Your task to perform on an android device: open app "Lyft - Rideshare, Bikes, Scooters & Transit" (install if not already installed), go to login, and select forgot password Image 0: 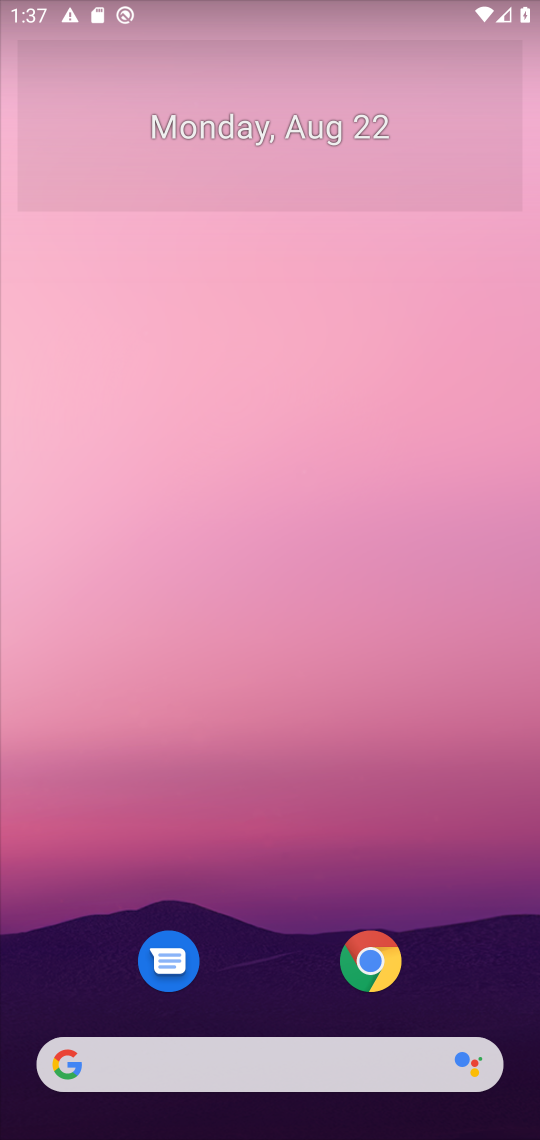
Step 0: press home button
Your task to perform on an android device: open app "Lyft - Rideshare, Bikes, Scooters & Transit" (install if not already installed), go to login, and select forgot password Image 1: 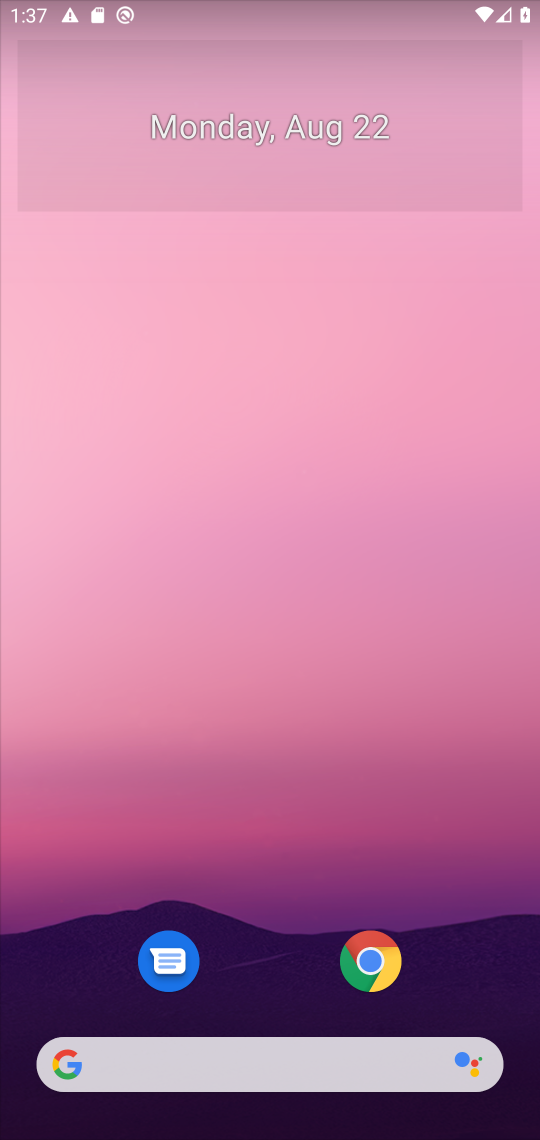
Step 1: drag from (473, 830) to (494, 230)
Your task to perform on an android device: open app "Lyft - Rideshare, Bikes, Scooters & Transit" (install if not already installed), go to login, and select forgot password Image 2: 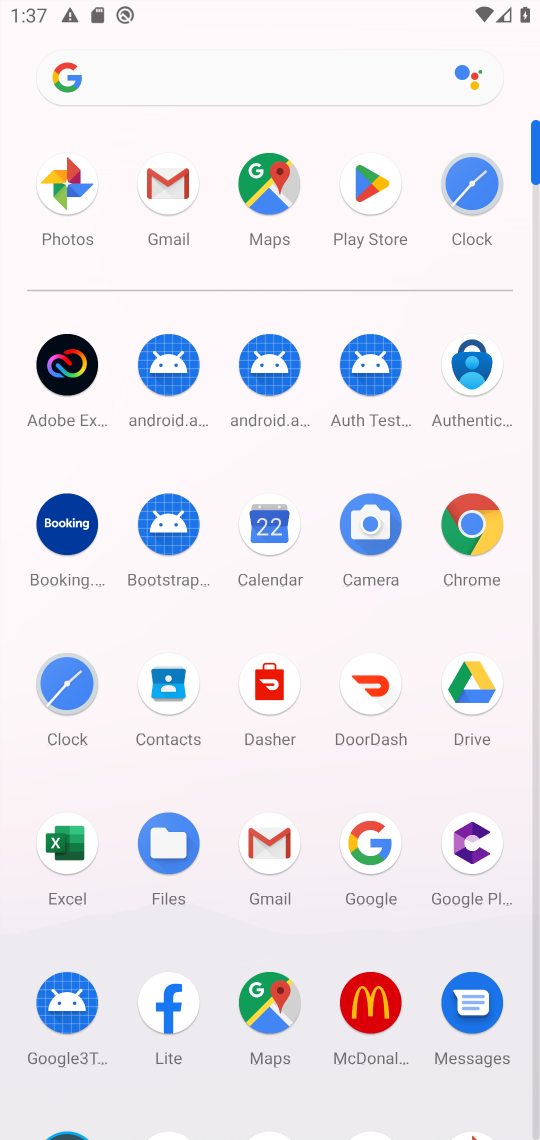
Step 2: click (365, 180)
Your task to perform on an android device: open app "Lyft - Rideshare, Bikes, Scooters & Transit" (install if not already installed), go to login, and select forgot password Image 3: 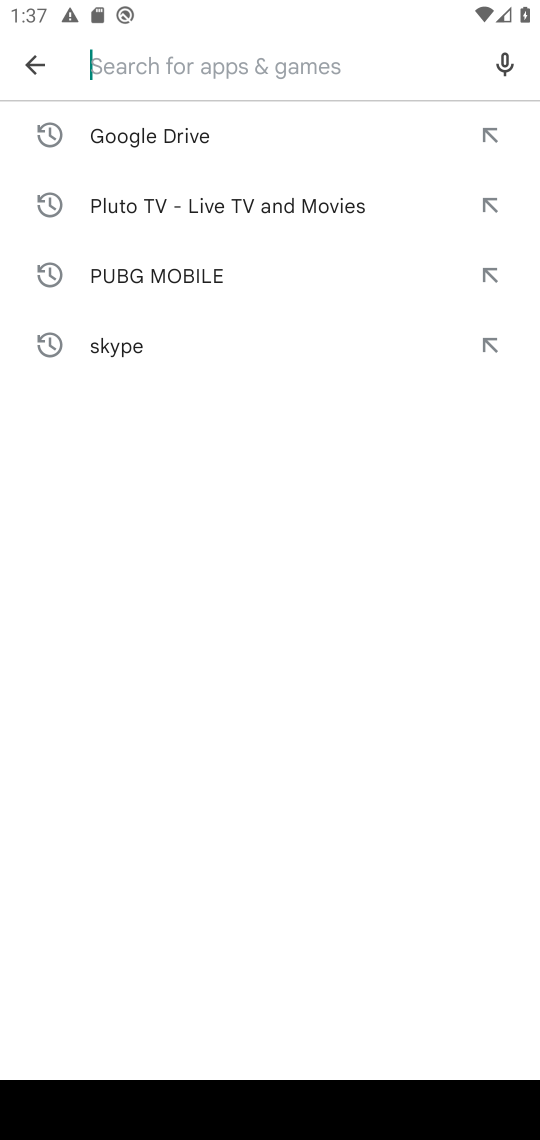
Step 3: press enter
Your task to perform on an android device: open app "Lyft - Rideshare, Bikes, Scooters & Transit" (install if not already installed), go to login, and select forgot password Image 4: 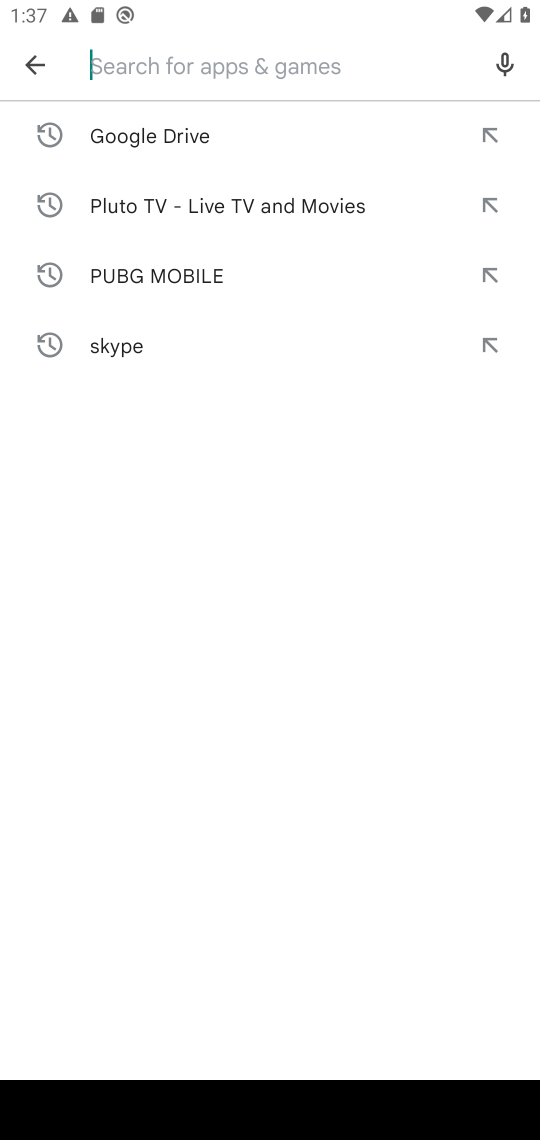
Step 4: type "Lyft - Rideshare, Bikes, Scooters & Transit"
Your task to perform on an android device: open app "Lyft - Rideshare, Bikes, Scooters & Transit" (install if not already installed), go to login, and select forgot password Image 5: 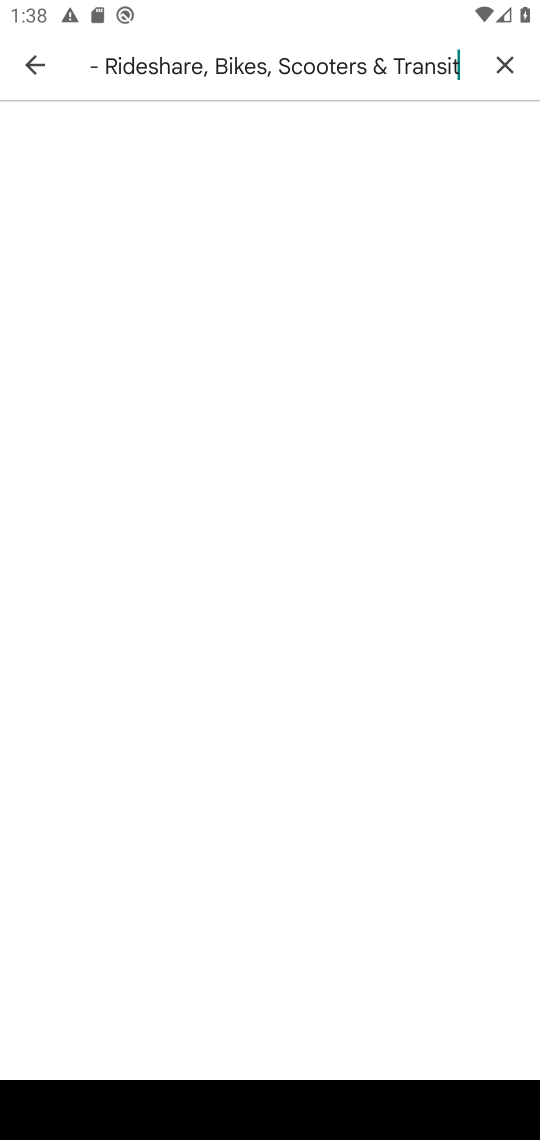
Step 5: task complete